Your task to perform on an android device: Open Chrome and go to the settings page Image 0: 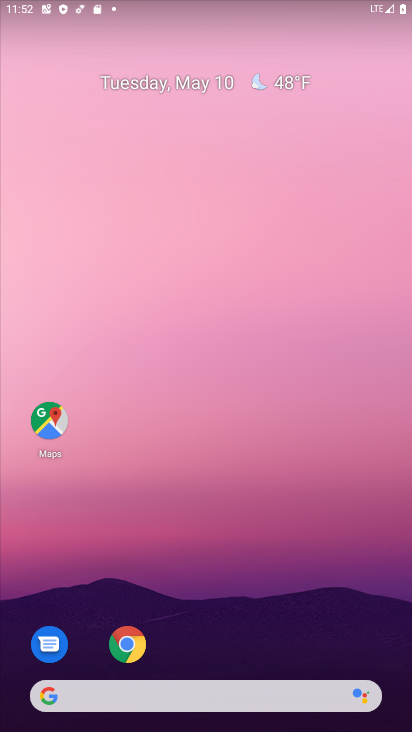
Step 0: click (140, 638)
Your task to perform on an android device: Open Chrome and go to the settings page Image 1: 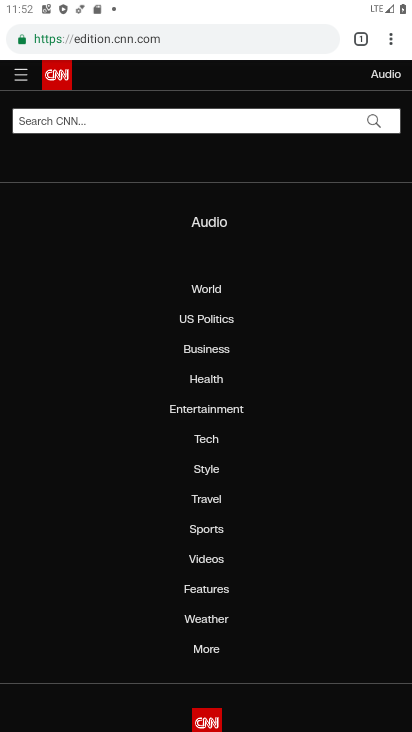
Step 1: click (394, 41)
Your task to perform on an android device: Open Chrome and go to the settings page Image 2: 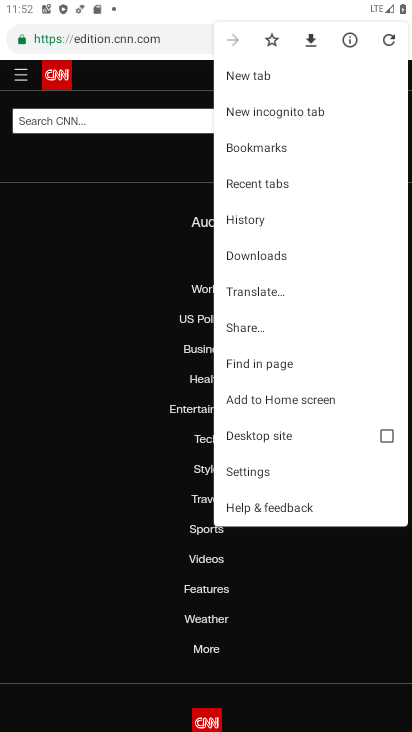
Step 2: click (246, 471)
Your task to perform on an android device: Open Chrome and go to the settings page Image 3: 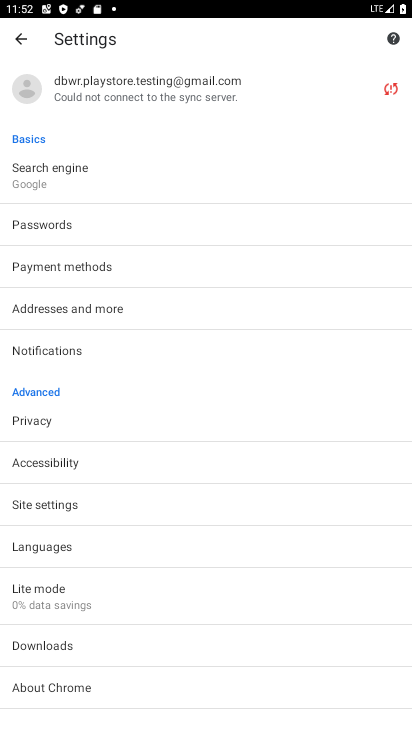
Step 3: task complete